Your task to perform on an android device: Do I have any events this weekend? Image 0: 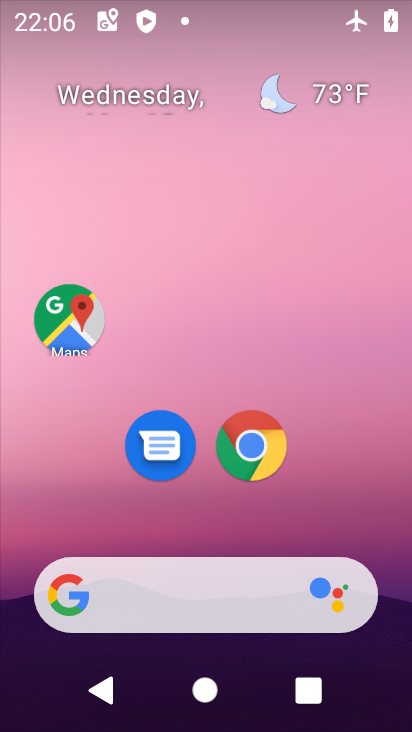
Step 0: drag from (308, 503) to (310, 114)
Your task to perform on an android device: Do I have any events this weekend? Image 1: 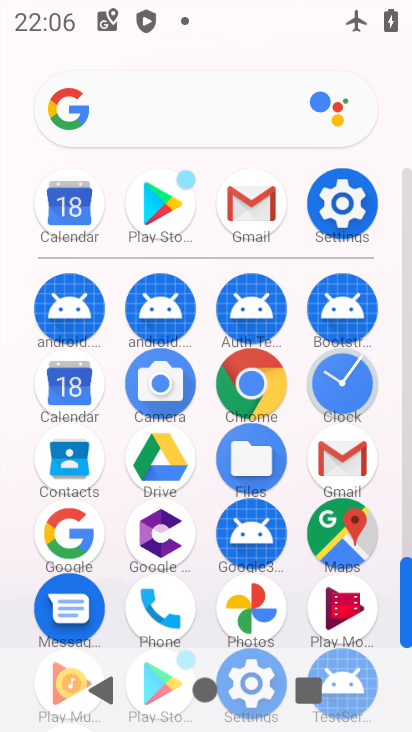
Step 1: click (57, 377)
Your task to perform on an android device: Do I have any events this weekend? Image 2: 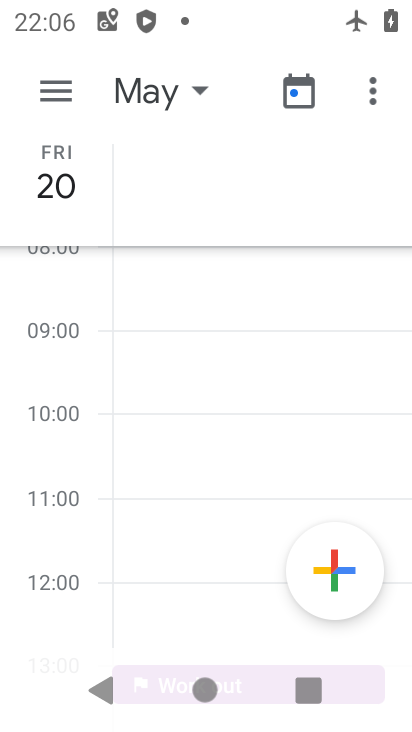
Step 2: task complete